Your task to perform on an android device: check storage Image 0: 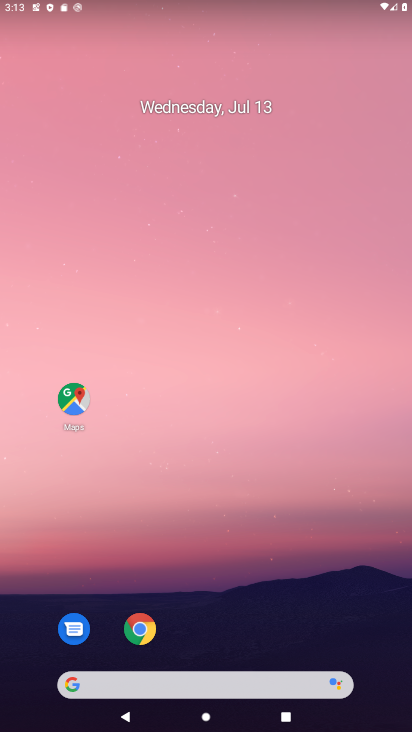
Step 0: click (400, 506)
Your task to perform on an android device: check storage Image 1: 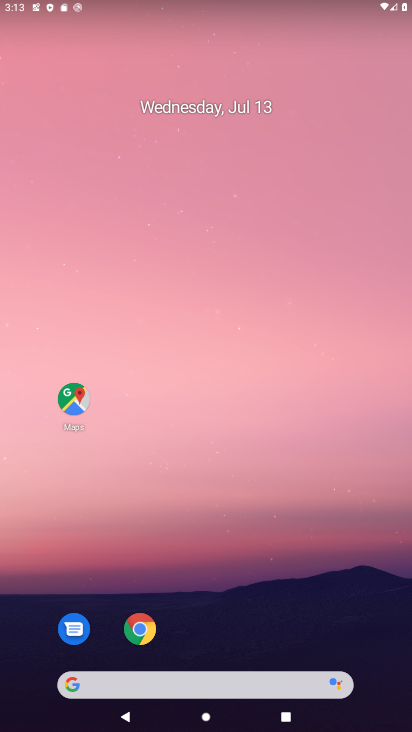
Step 1: drag from (370, 615) to (232, 0)
Your task to perform on an android device: check storage Image 2: 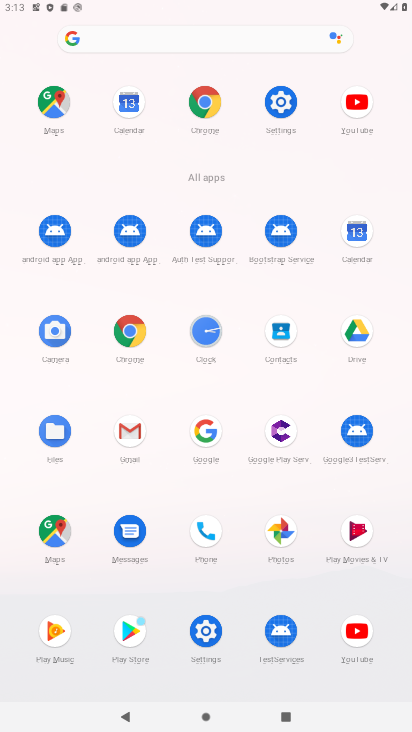
Step 2: click (294, 95)
Your task to perform on an android device: check storage Image 3: 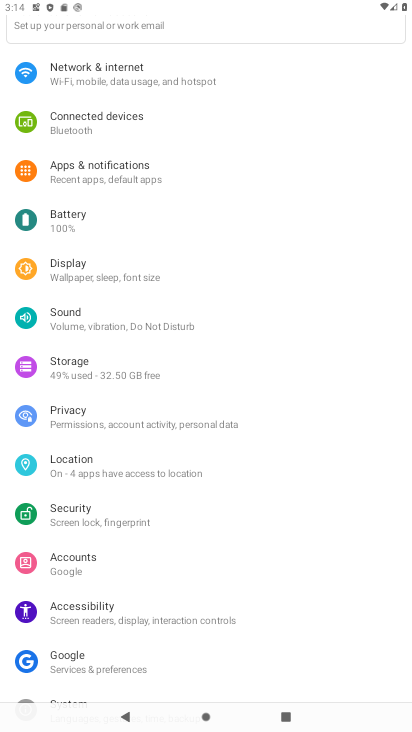
Step 3: drag from (221, 575) to (106, 249)
Your task to perform on an android device: check storage Image 4: 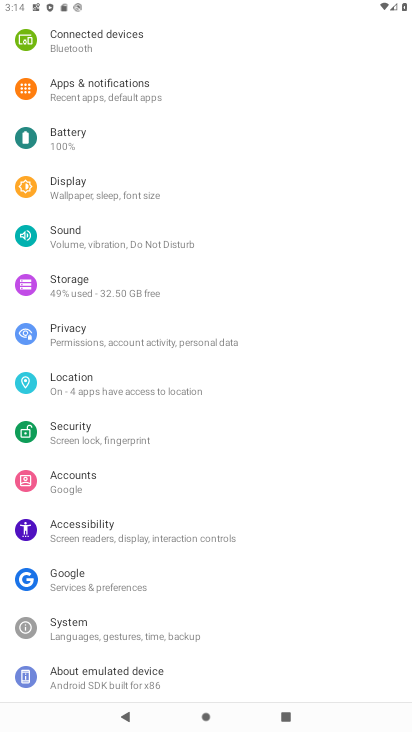
Step 4: click (103, 282)
Your task to perform on an android device: check storage Image 5: 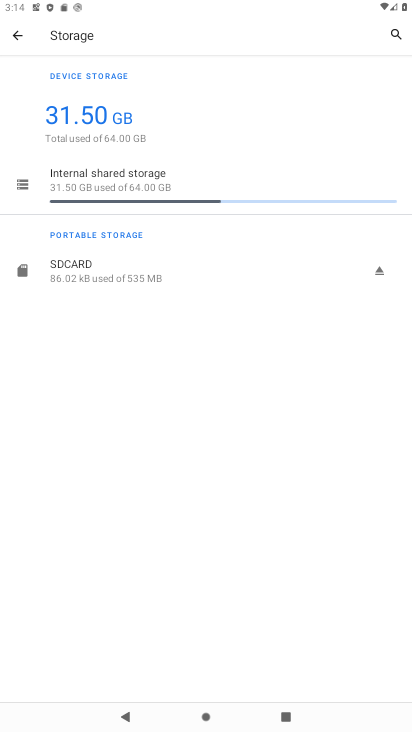
Step 5: task complete